Your task to perform on an android device: check the backup settings in the google photos Image 0: 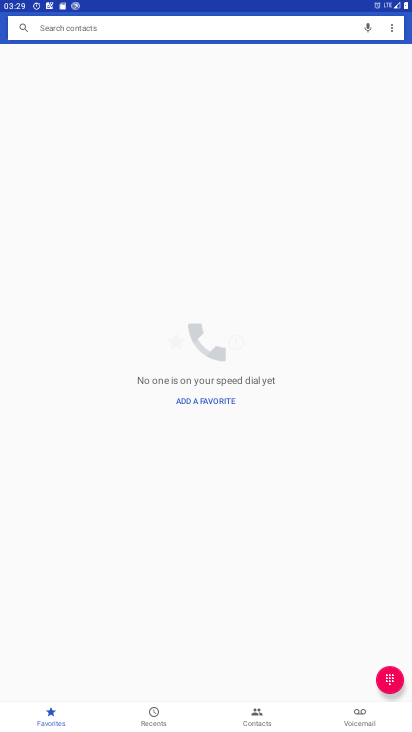
Step 0: press home button
Your task to perform on an android device: check the backup settings in the google photos Image 1: 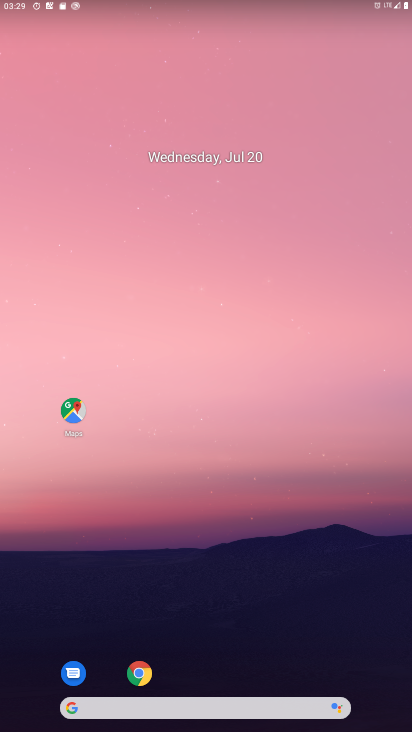
Step 1: drag from (196, 647) to (214, 68)
Your task to perform on an android device: check the backup settings in the google photos Image 2: 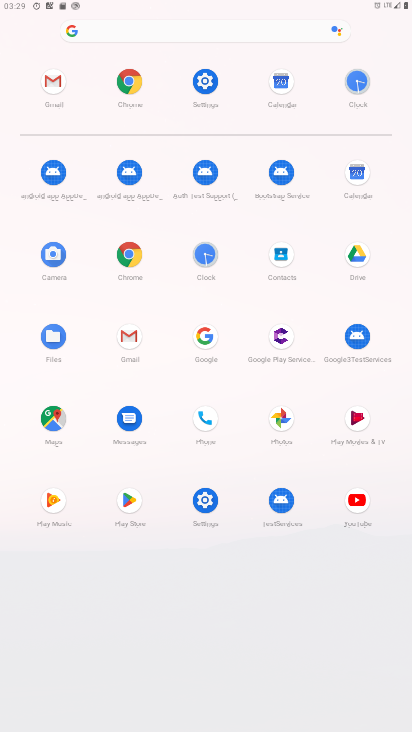
Step 2: click (278, 424)
Your task to perform on an android device: check the backup settings in the google photos Image 3: 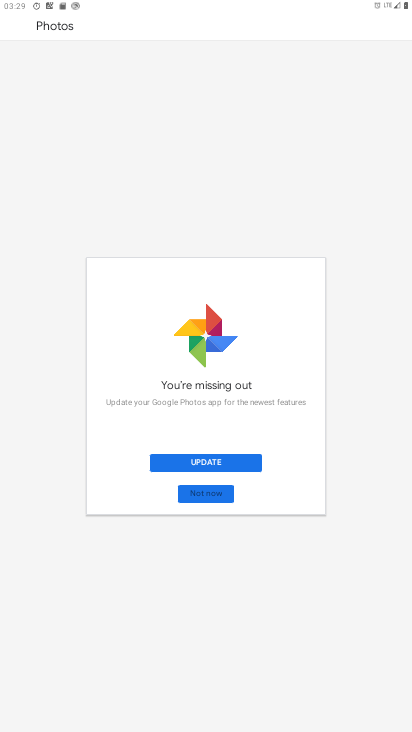
Step 3: click (217, 502)
Your task to perform on an android device: check the backup settings in the google photos Image 4: 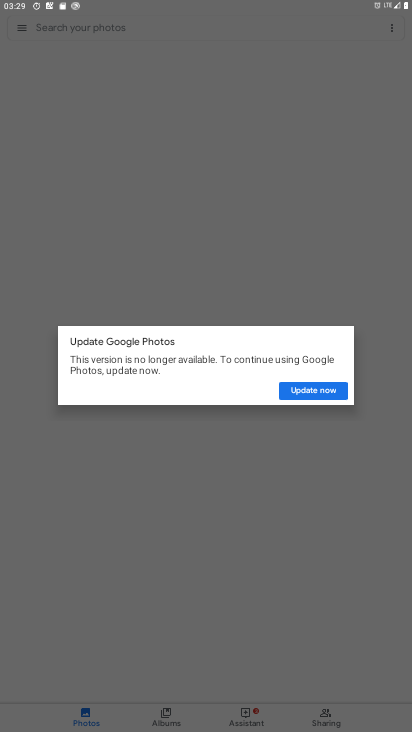
Step 4: click (310, 392)
Your task to perform on an android device: check the backup settings in the google photos Image 5: 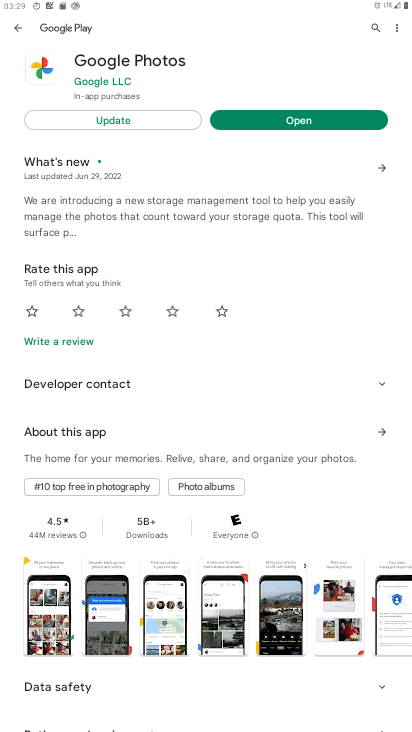
Step 5: click (272, 115)
Your task to perform on an android device: check the backup settings in the google photos Image 6: 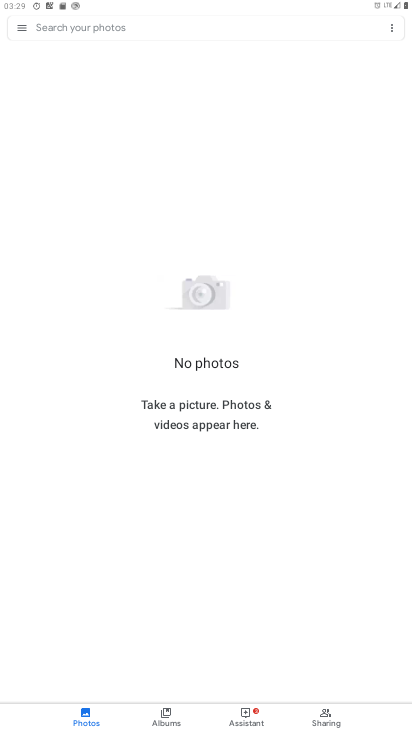
Step 6: click (14, 23)
Your task to perform on an android device: check the backup settings in the google photos Image 7: 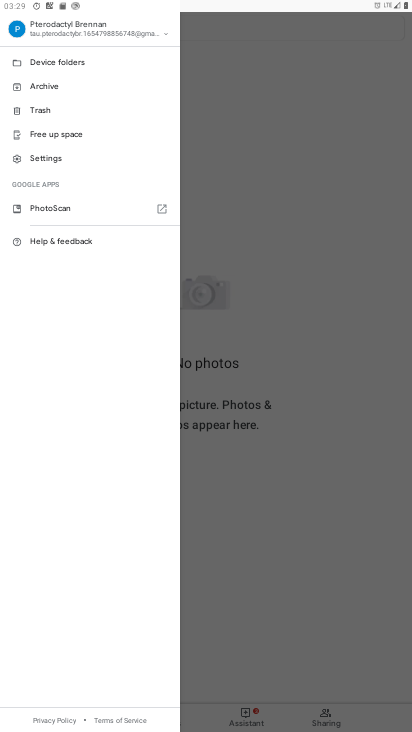
Step 7: click (50, 161)
Your task to perform on an android device: check the backup settings in the google photos Image 8: 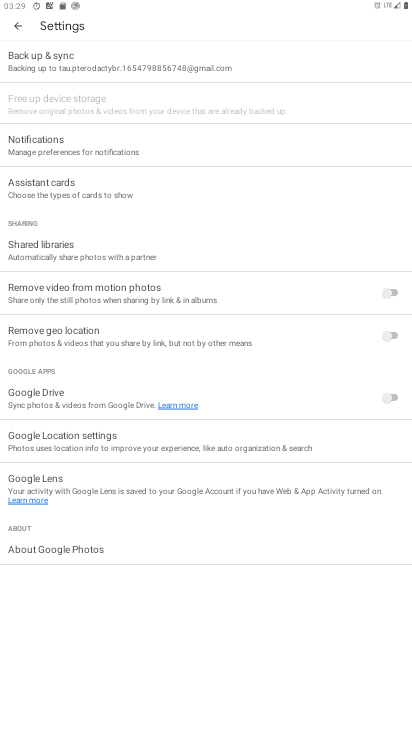
Step 8: click (71, 57)
Your task to perform on an android device: check the backup settings in the google photos Image 9: 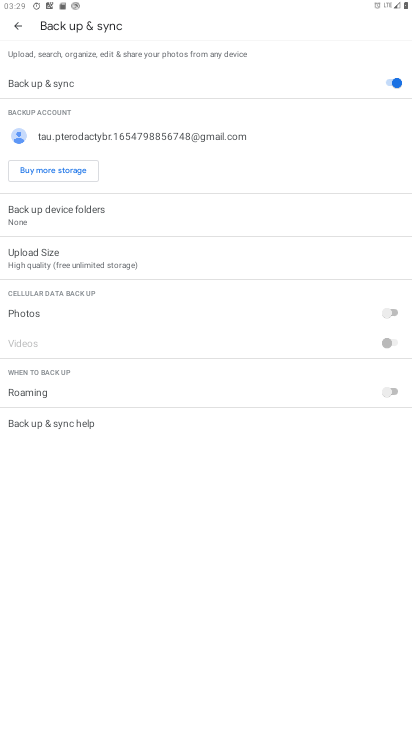
Step 9: task complete